Your task to perform on an android device: Open Amazon Image 0: 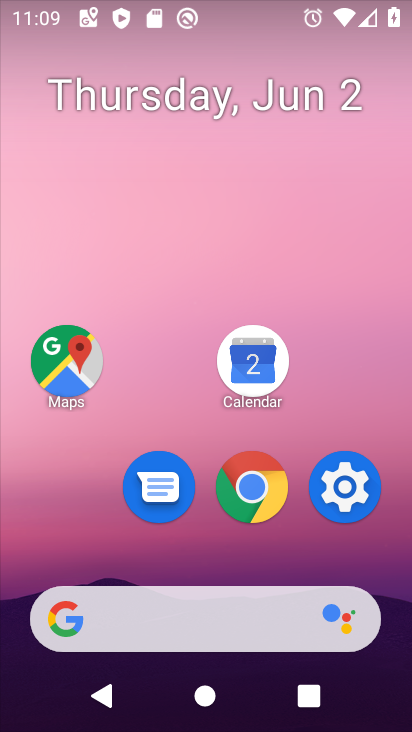
Step 0: press home button
Your task to perform on an android device: Open Amazon Image 1: 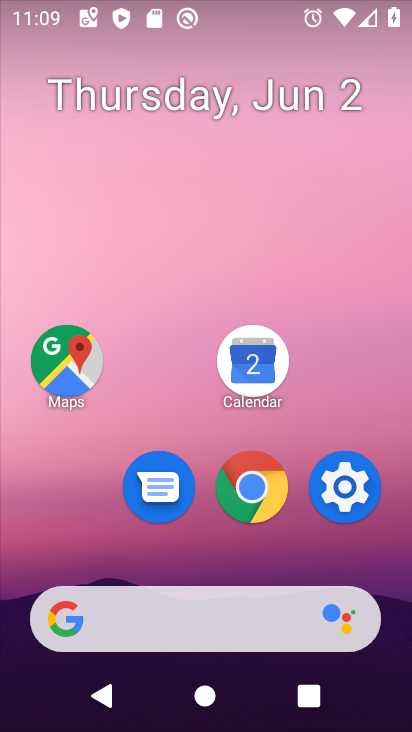
Step 1: click (243, 488)
Your task to perform on an android device: Open Amazon Image 2: 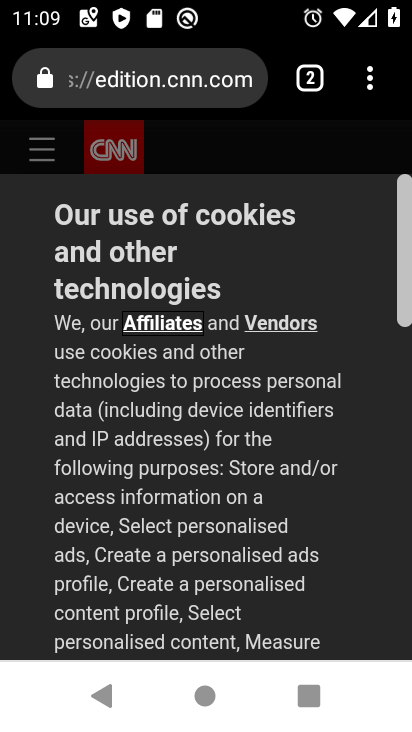
Step 2: click (305, 85)
Your task to perform on an android device: Open Amazon Image 3: 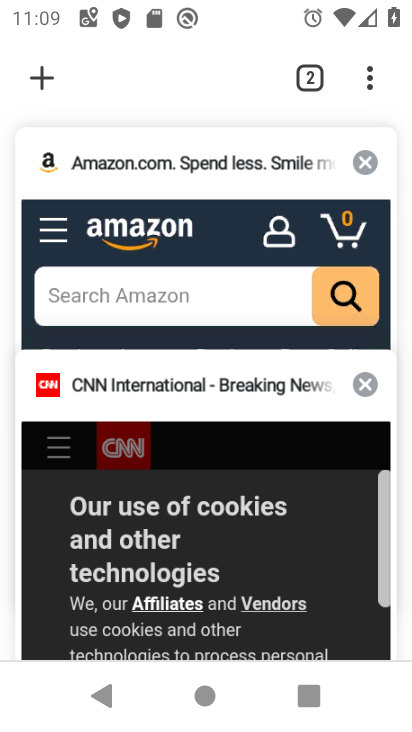
Step 3: click (36, 78)
Your task to perform on an android device: Open Amazon Image 4: 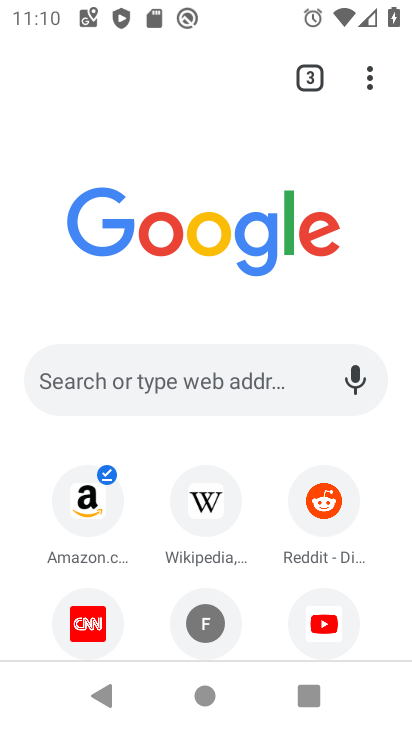
Step 4: click (103, 515)
Your task to perform on an android device: Open Amazon Image 5: 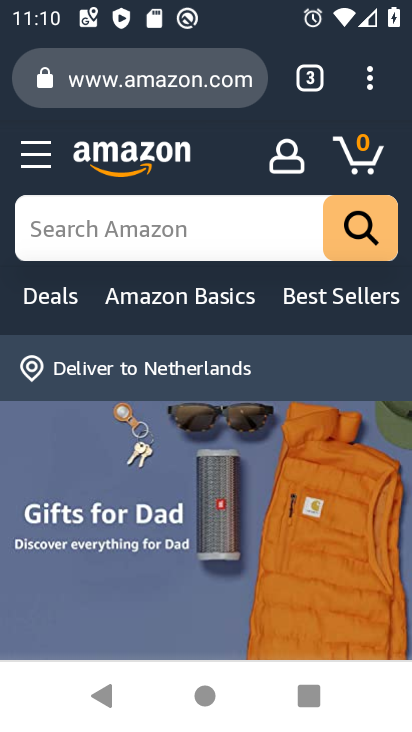
Step 5: task complete